Your task to perform on an android device: turn off location history Image 0: 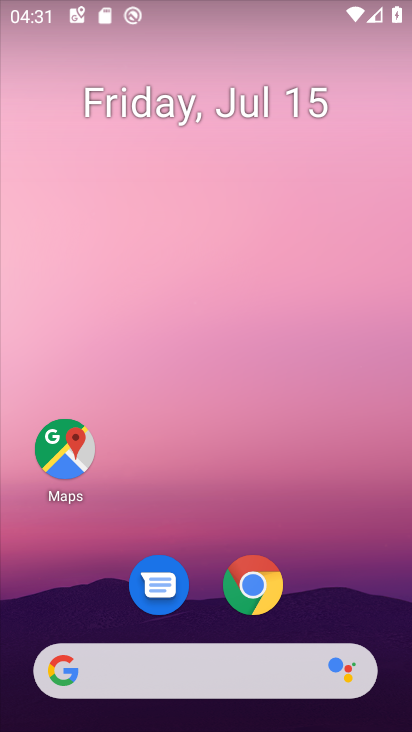
Step 0: drag from (214, 477) to (254, 18)
Your task to perform on an android device: turn off location history Image 1: 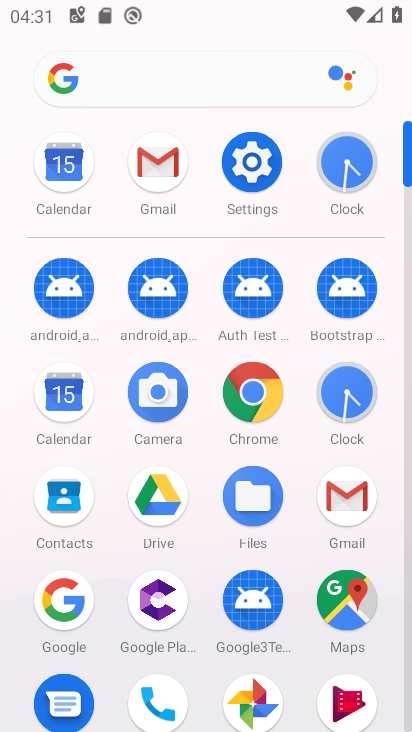
Step 1: click (259, 159)
Your task to perform on an android device: turn off location history Image 2: 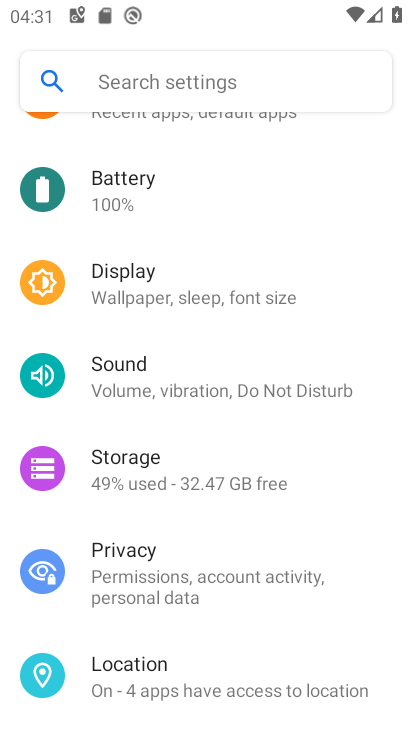
Step 2: click (218, 679)
Your task to perform on an android device: turn off location history Image 3: 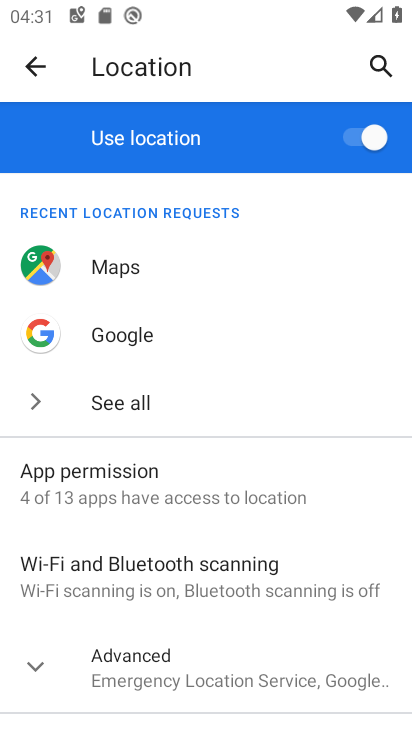
Step 3: click (364, 138)
Your task to perform on an android device: turn off location history Image 4: 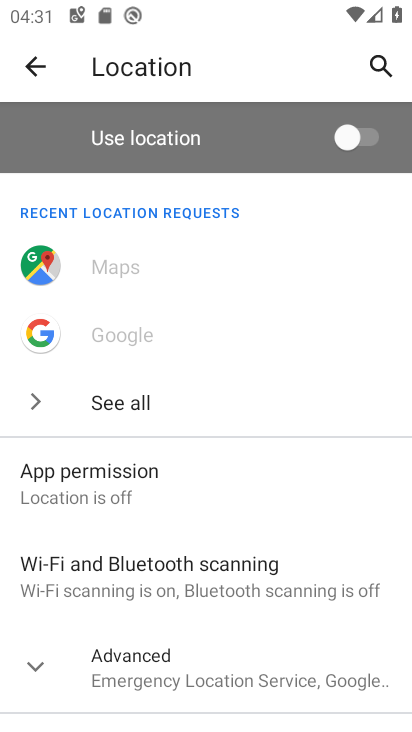
Step 4: task complete